Your task to perform on an android device: Search for Italian restaurants on Maps Image 0: 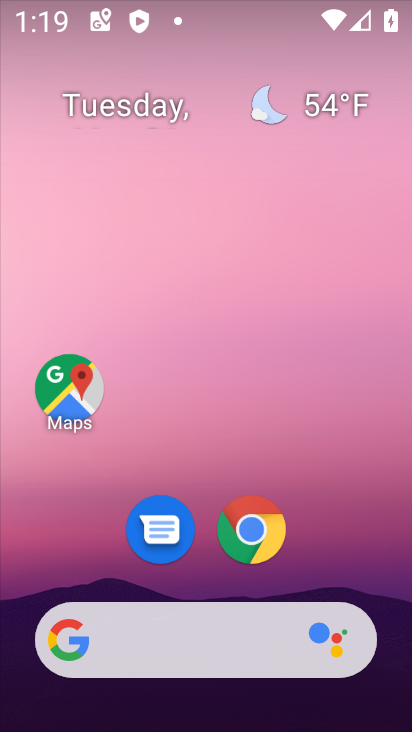
Step 0: click (68, 389)
Your task to perform on an android device: Search for Italian restaurants on Maps Image 1: 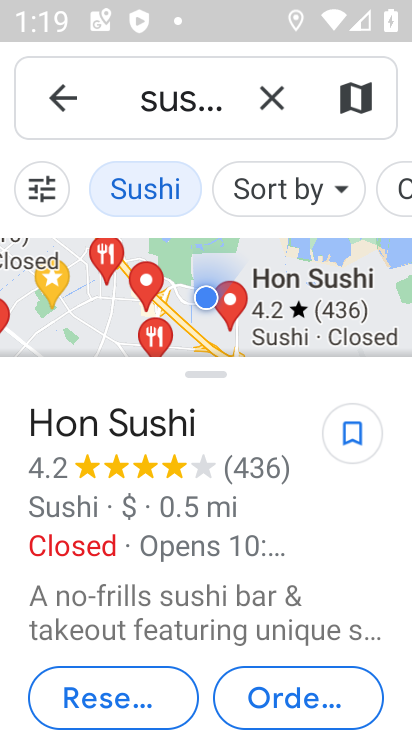
Step 1: click (273, 98)
Your task to perform on an android device: Search for Italian restaurants on Maps Image 2: 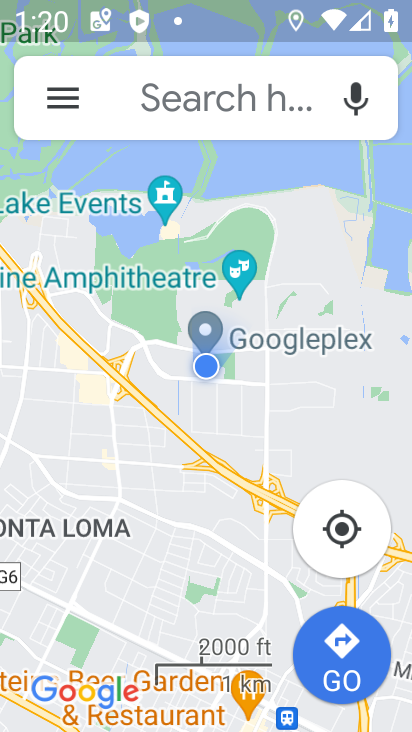
Step 2: click (194, 91)
Your task to perform on an android device: Search for Italian restaurants on Maps Image 3: 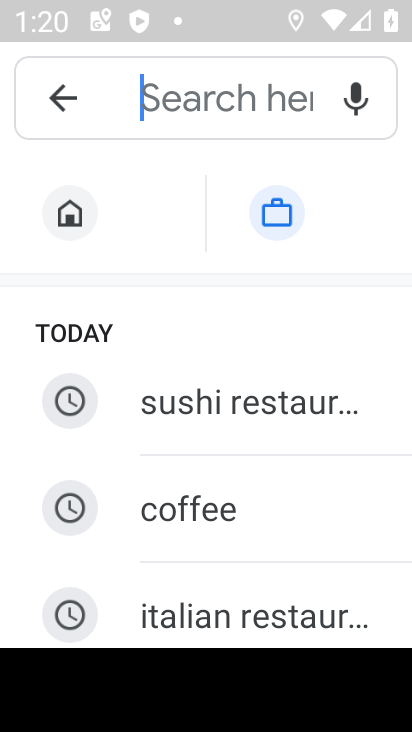
Step 3: type "Italian restaurants"
Your task to perform on an android device: Search for Italian restaurants on Maps Image 4: 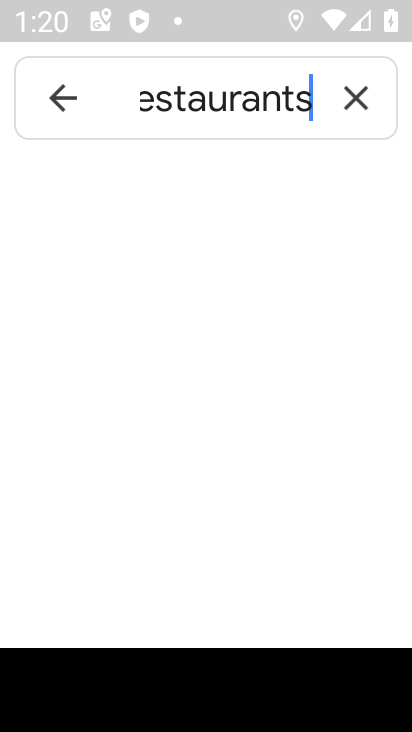
Step 4: type ""
Your task to perform on an android device: Search for Italian restaurants on Maps Image 5: 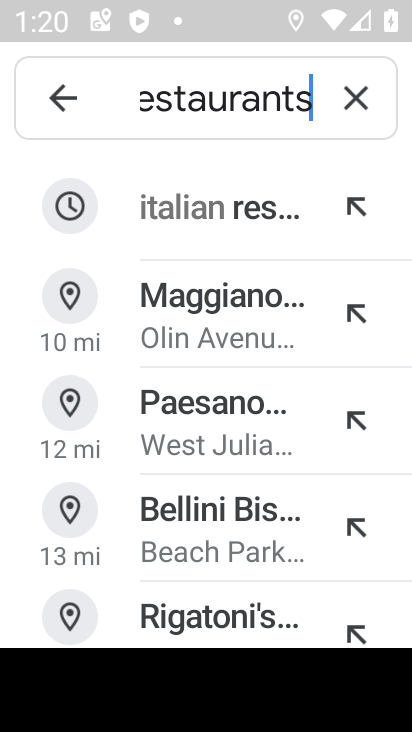
Step 5: click (186, 217)
Your task to perform on an android device: Search for Italian restaurants on Maps Image 6: 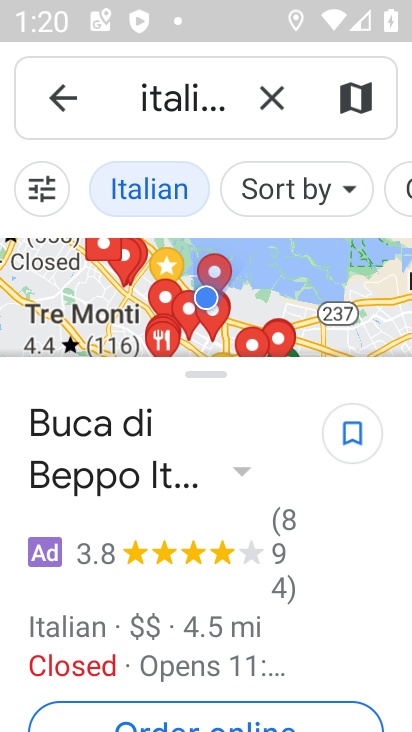
Step 6: task complete